Your task to perform on an android device: toggle notifications settings in the gmail app Image 0: 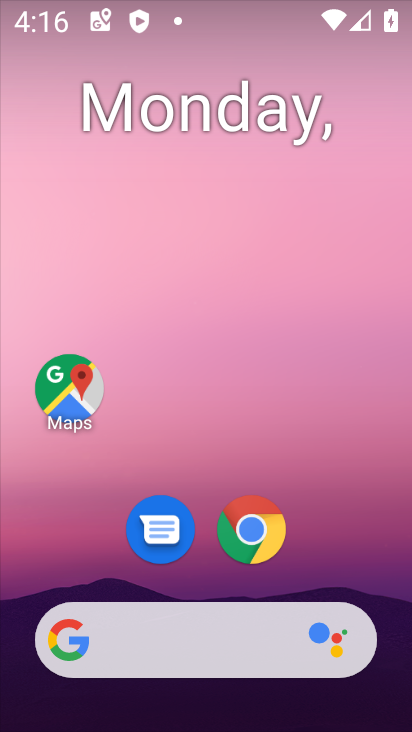
Step 0: drag from (202, 682) to (200, 142)
Your task to perform on an android device: toggle notifications settings in the gmail app Image 1: 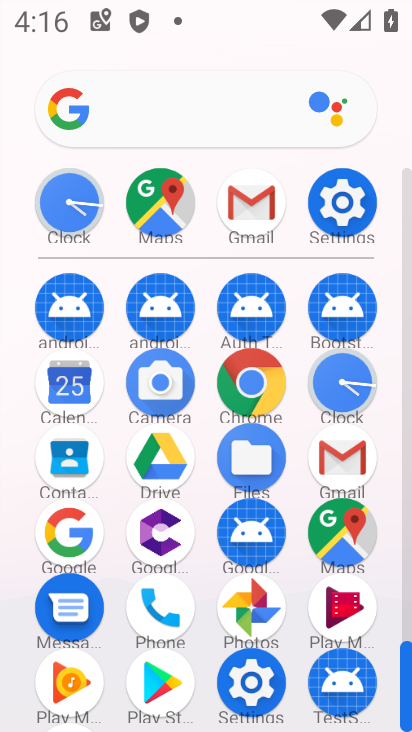
Step 1: click (339, 455)
Your task to perform on an android device: toggle notifications settings in the gmail app Image 2: 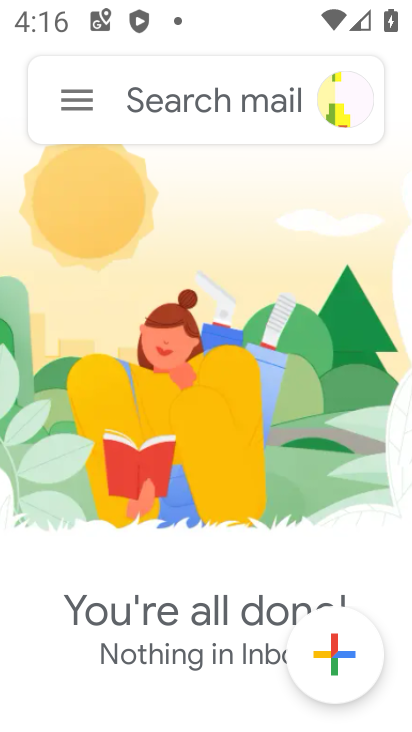
Step 2: click (77, 102)
Your task to perform on an android device: toggle notifications settings in the gmail app Image 3: 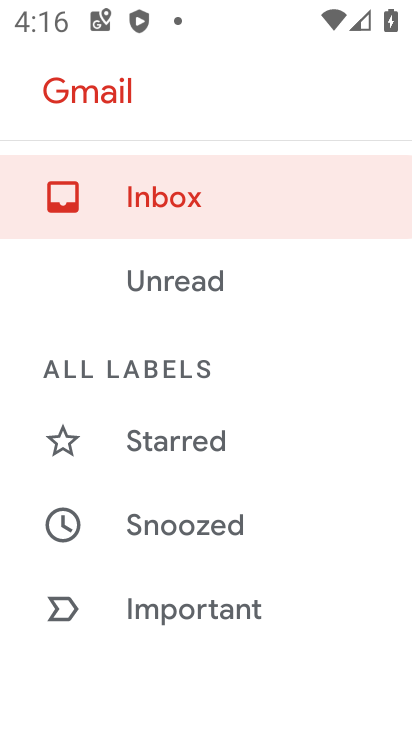
Step 3: drag from (191, 627) to (171, 317)
Your task to perform on an android device: toggle notifications settings in the gmail app Image 4: 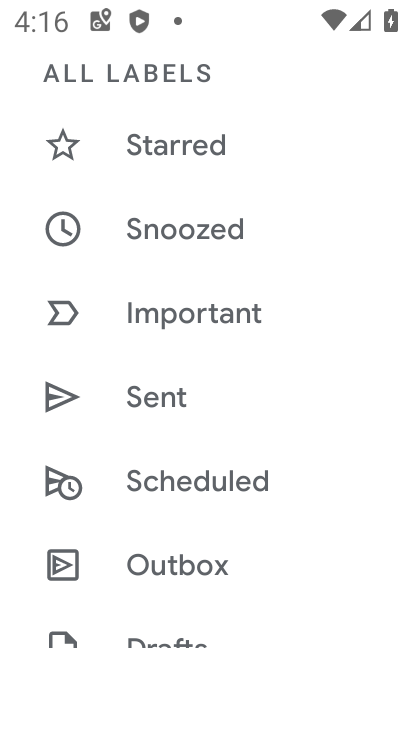
Step 4: drag from (184, 633) to (183, 251)
Your task to perform on an android device: toggle notifications settings in the gmail app Image 5: 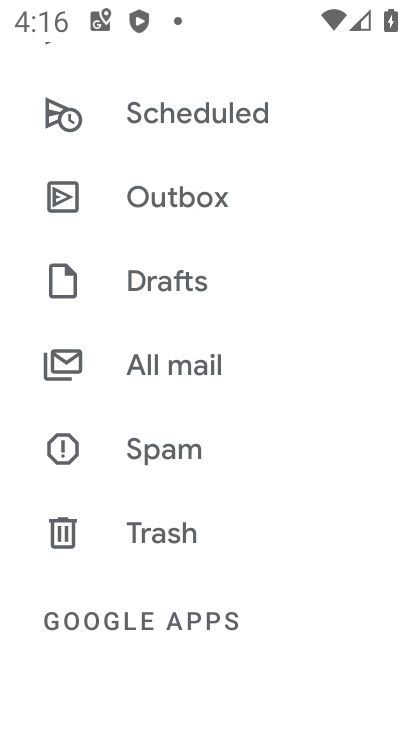
Step 5: drag from (175, 605) to (174, 270)
Your task to perform on an android device: toggle notifications settings in the gmail app Image 6: 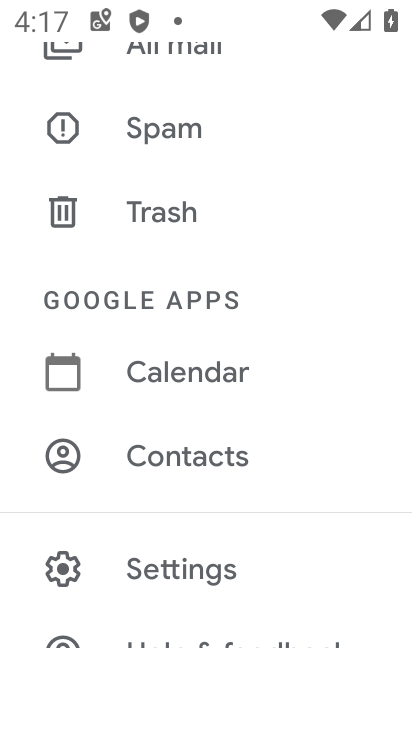
Step 6: click (144, 557)
Your task to perform on an android device: toggle notifications settings in the gmail app Image 7: 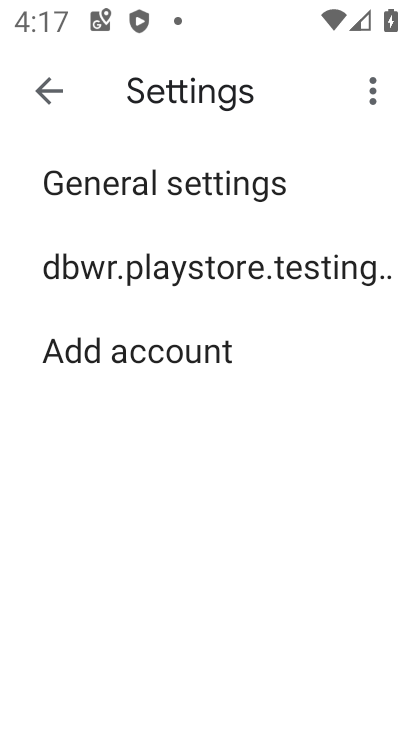
Step 7: click (198, 267)
Your task to perform on an android device: toggle notifications settings in the gmail app Image 8: 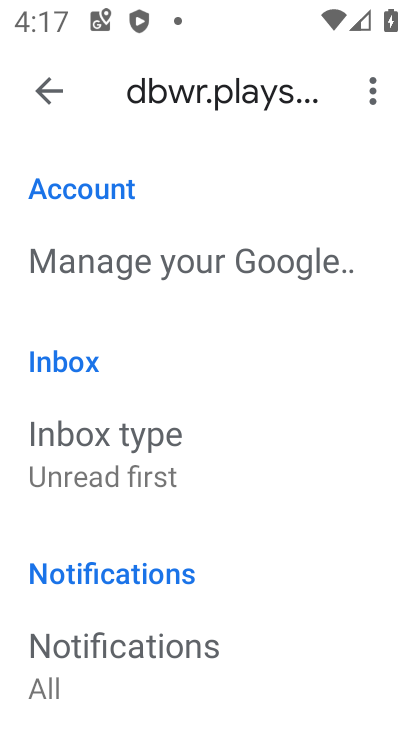
Step 8: drag from (160, 693) to (159, 388)
Your task to perform on an android device: toggle notifications settings in the gmail app Image 9: 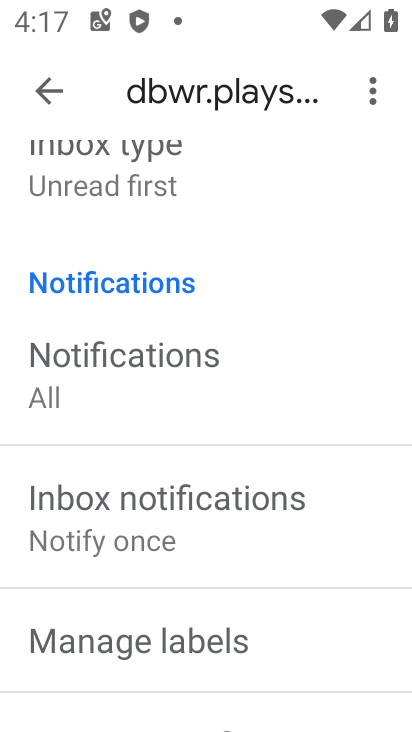
Step 9: click (117, 347)
Your task to perform on an android device: toggle notifications settings in the gmail app Image 10: 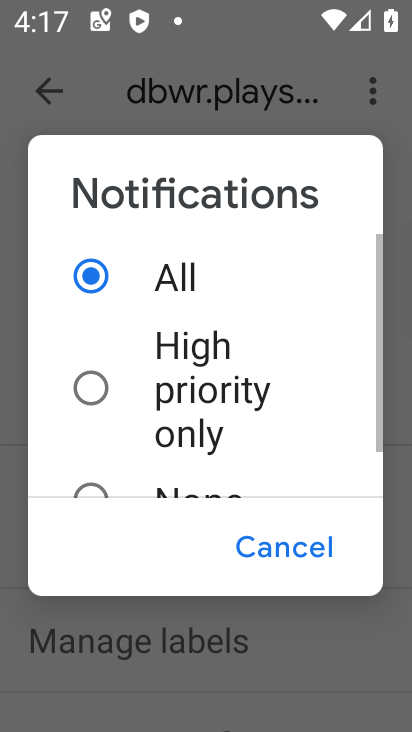
Step 10: click (89, 488)
Your task to perform on an android device: toggle notifications settings in the gmail app Image 11: 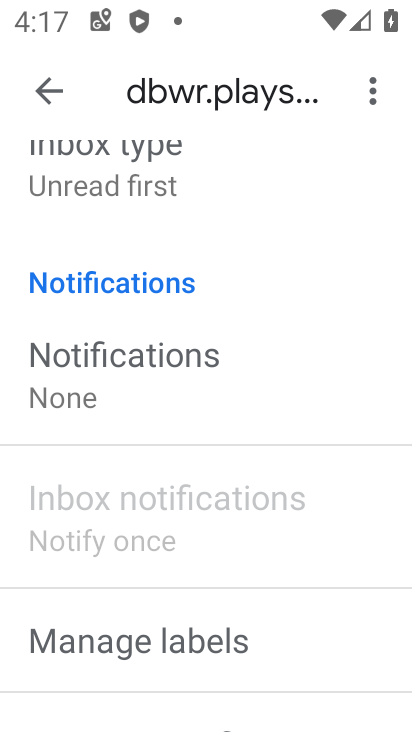
Step 11: task complete